Your task to perform on an android device: Search for Italian restaurants on Maps Image 0: 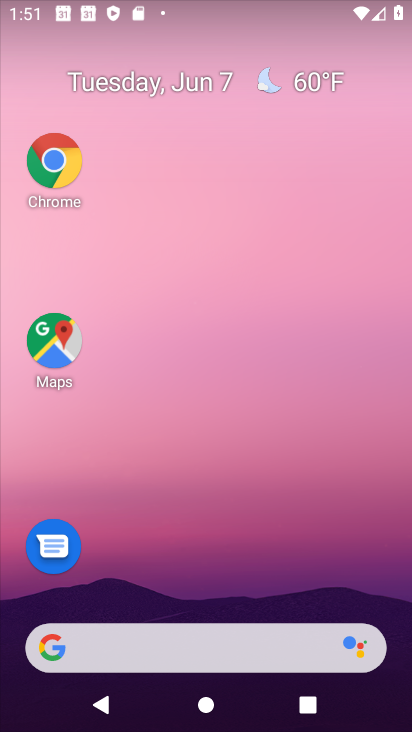
Step 0: drag from (218, 605) to (216, 42)
Your task to perform on an android device: Search for Italian restaurants on Maps Image 1: 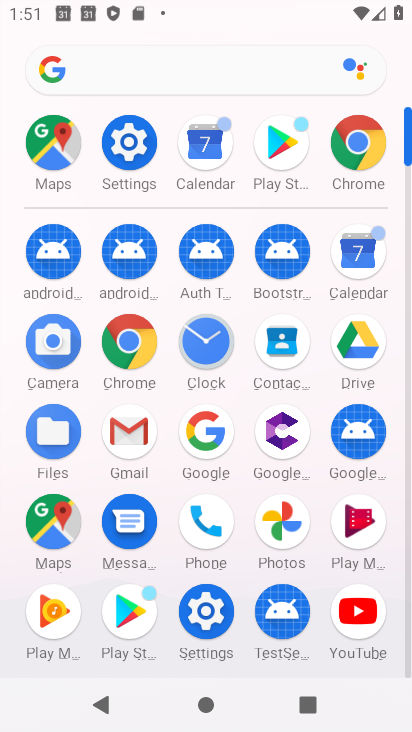
Step 1: click (57, 535)
Your task to perform on an android device: Search for Italian restaurants on Maps Image 2: 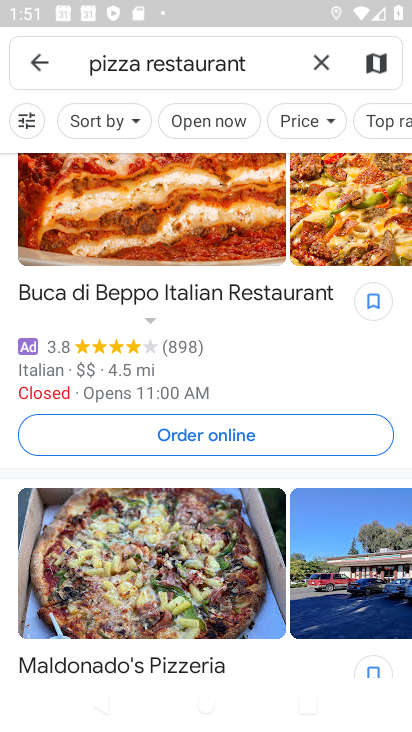
Step 2: click (318, 53)
Your task to perform on an android device: Search for Italian restaurants on Maps Image 3: 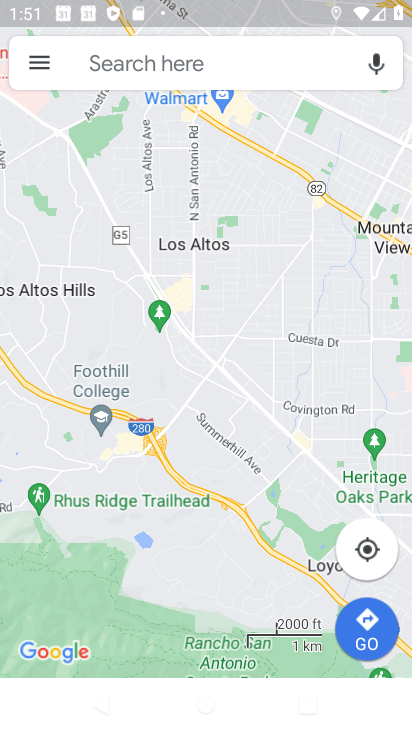
Step 3: click (170, 65)
Your task to perform on an android device: Search for Italian restaurants on Maps Image 4: 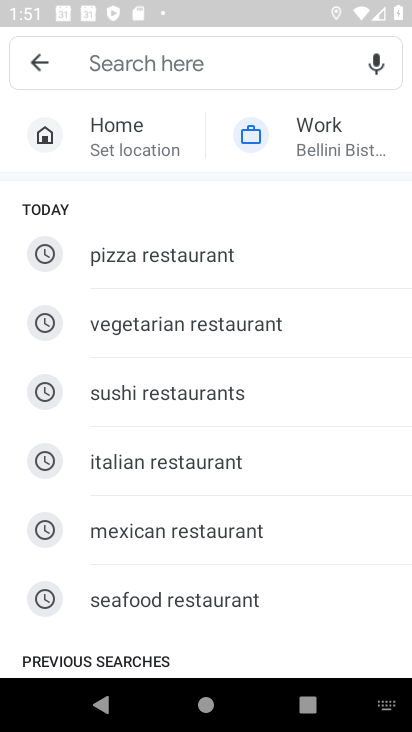
Step 4: click (163, 460)
Your task to perform on an android device: Search for Italian restaurants on Maps Image 5: 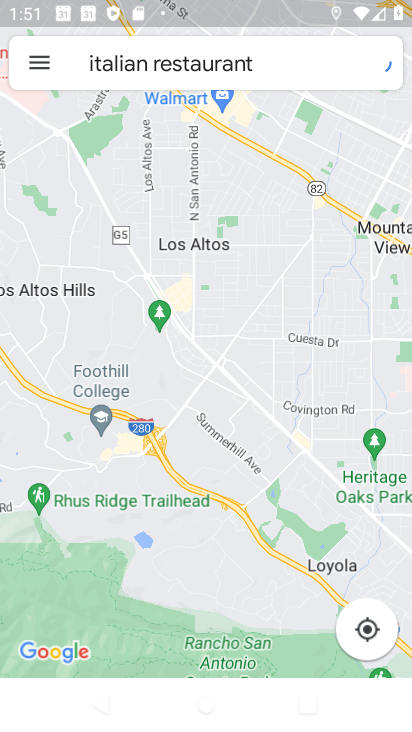
Step 5: task complete